Your task to perform on an android device: Open the calendar app, open the side menu, and click the "Day" option Image 0: 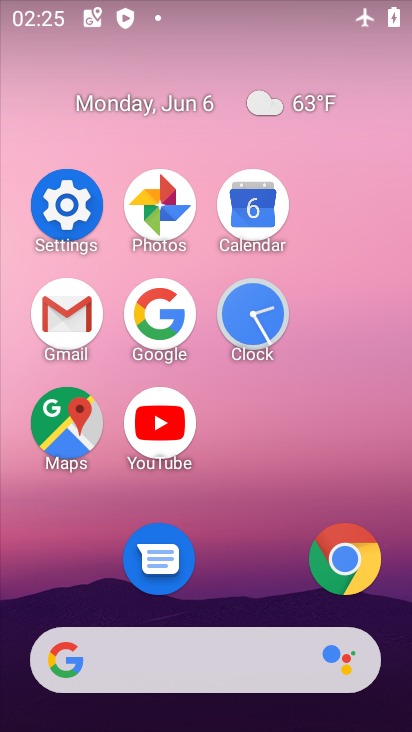
Step 0: click (263, 199)
Your task to perform on an android device: Open the calendar app, open the side menu, and click the "Day" option Image 1: 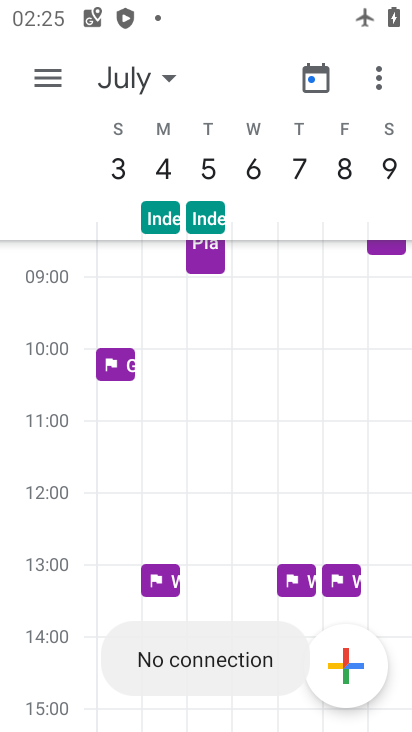
Step 1: click (59, 66)
Your task to perform on an android device: Open the calendar app, open the side menu, and click the "Day" option Image 2: 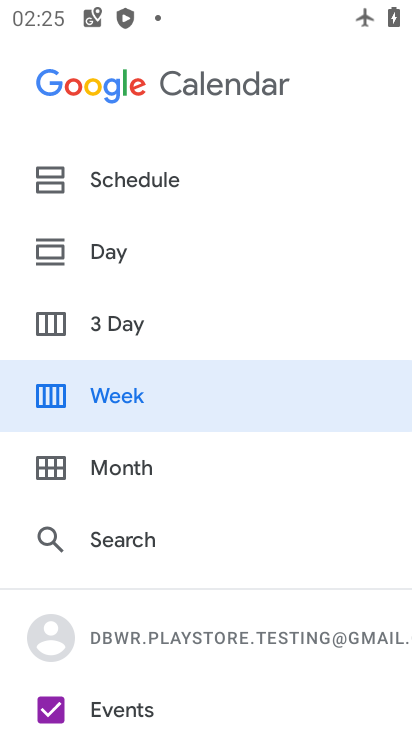
Step 2: click (115, 245)
Your task to perform on an android device: Open the calendar app, open the side menu, and click the "Day" option Image 3: 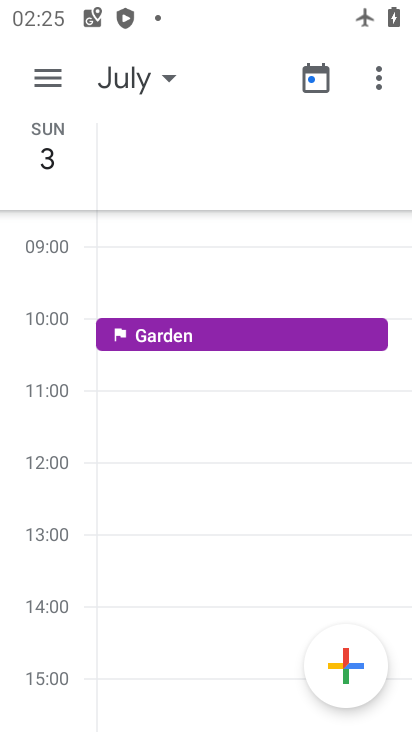
Step 3: task complete